Your task to perform on an android device: Open the stopwatch Image 0: 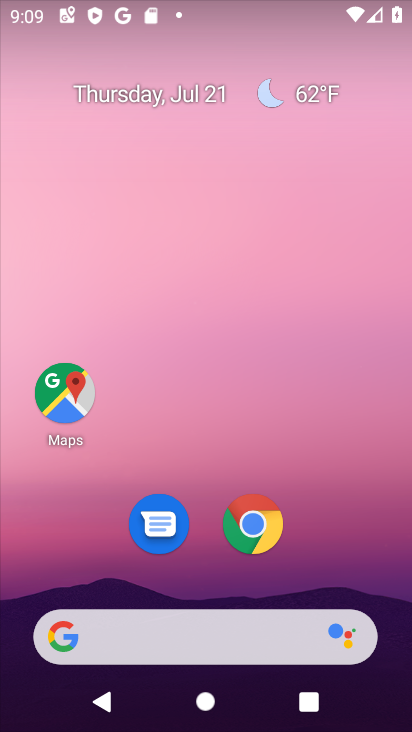
Step 0: press home button
Your task to perform on an android device: Open the stopwatch Image 1: 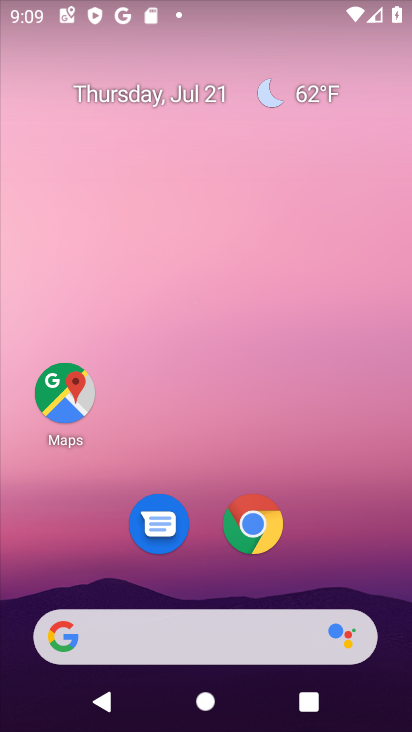
Step 1: drag from (182, 640) to (309, 35)
Your task to perform on an android device: Open the stopwatch Image 2: 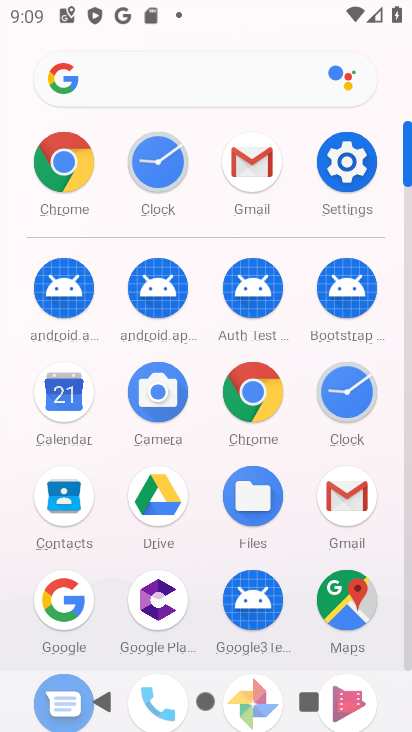
Step 2: click (351, 399)
Your task to perform on an android device: Open the stopwatch Image 3: 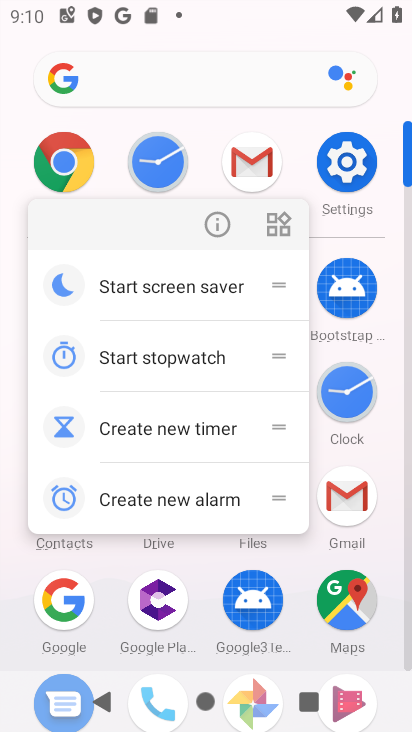
Step 3: click (346, 394)
Your task to perform on an android device: Open the stopwatch Image 4: 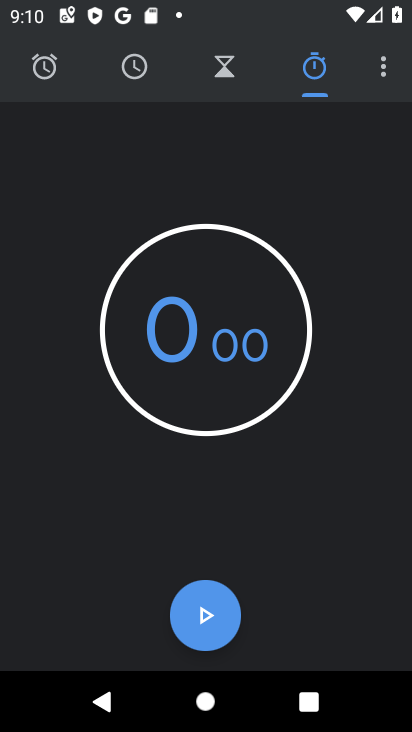
Step 4: task complete